Your task to perform on an android device: turn off data saver in the chrome app Image 0: 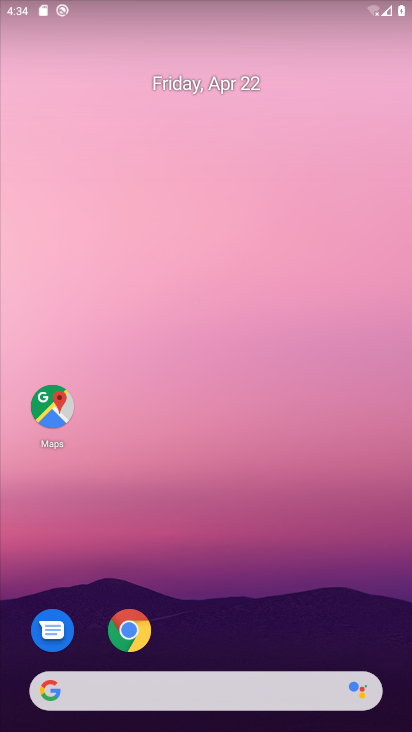
Step 0: click (135, 624)
Your task to perform on an android device: turn off data saver in the chrome app Image 1: 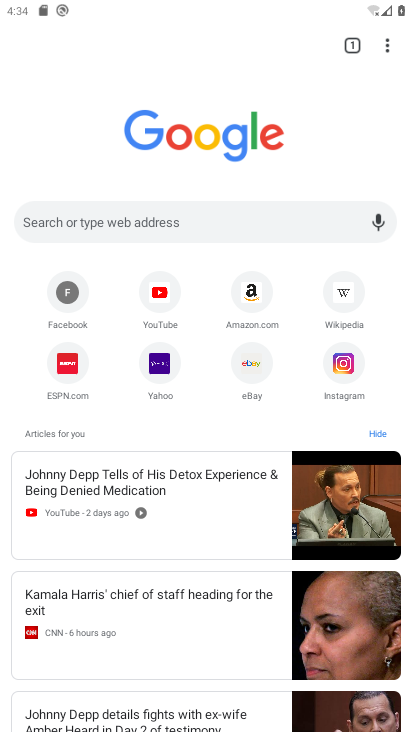
Step 1: click (392, 50)
Your task to perform on an android device: turn off data saver in the chrome app Image 2: 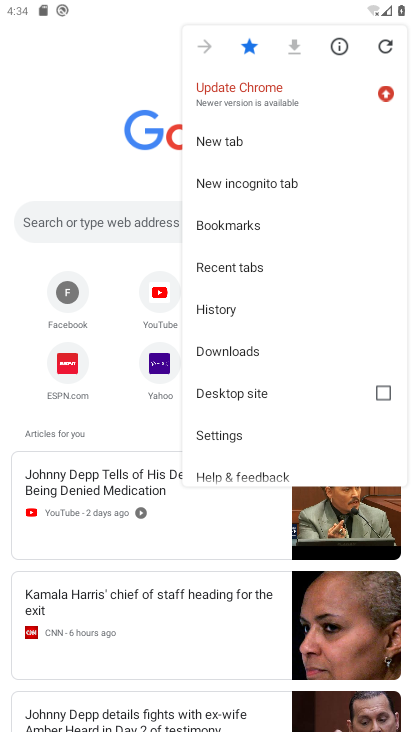
Step 2: click (220, 429)
Your task to perform on an android device: turn off data saver in the chrome app Image 3: 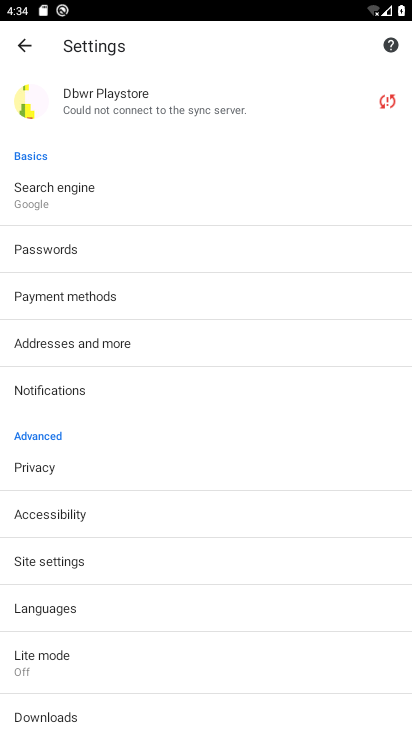
Step 3: click (63, 657)
Your task to perform on an android device: turn off data saver in the chrome app Image 4: 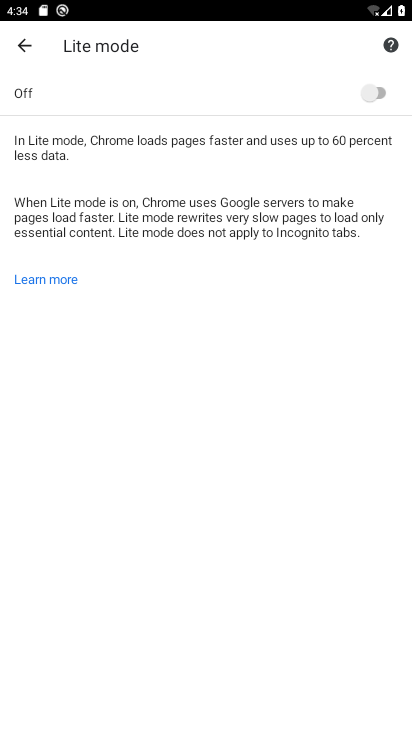
Step 4: task complete